Your task to perform on an android device: Open maps Image 0: 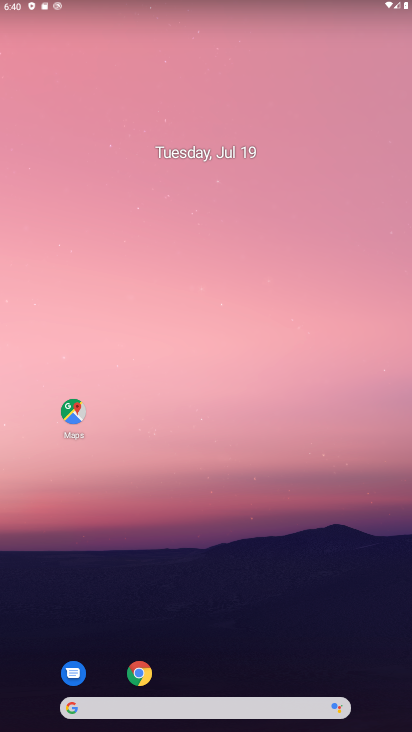
Step 0: drag from (376, 650) to (216, 36)
Your task to perform on an android device: Open maps Image 1: 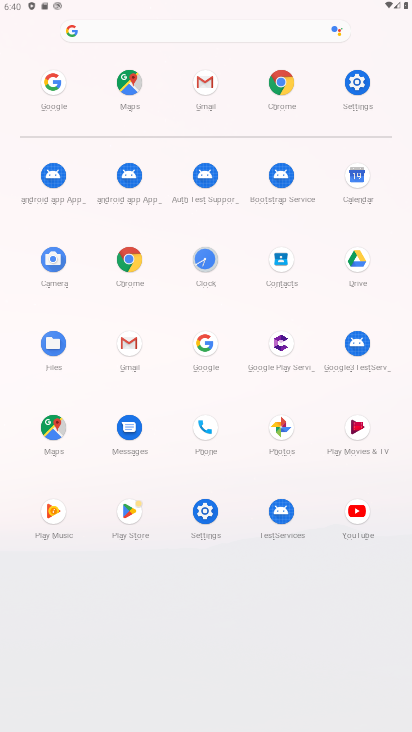
Step 1: click (58, 431)
Your task to perform on an android device: Open maps Image 2: 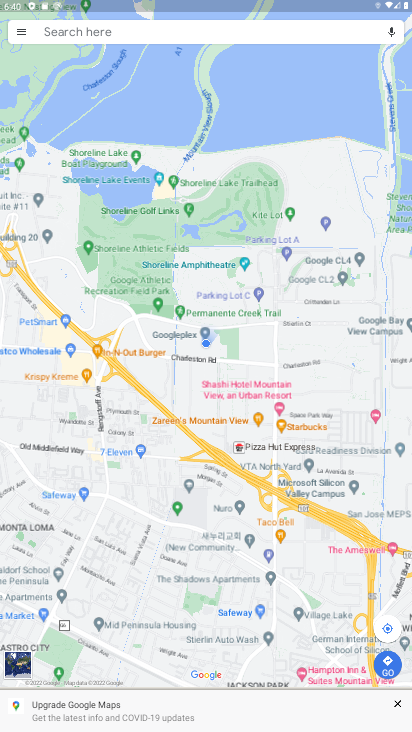
Step 2: task complete